Your task to perform on an android device: turn off picture-in-picture Image 0: 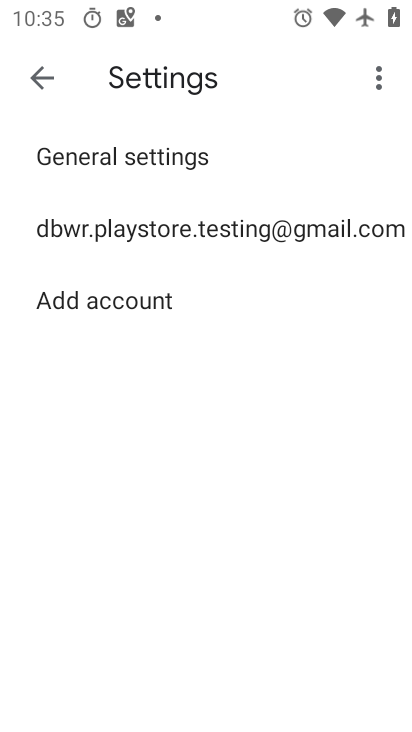
Step 0: press home button
Your task to perform on an android device: turn off picture-in-picture Image 1: 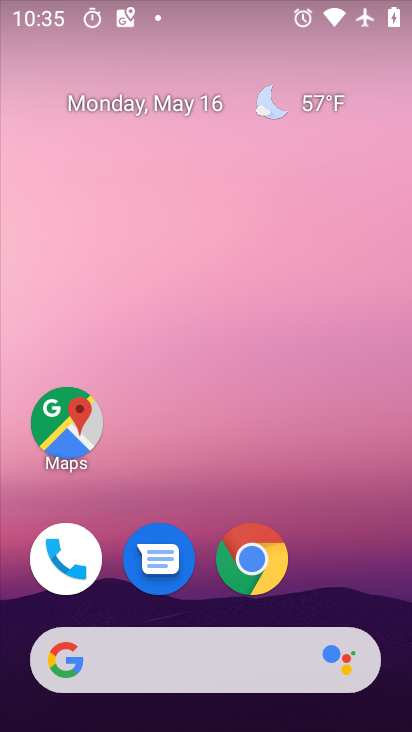
Step 1: click (240, 577)
Your task to perform on an android device: turn off picture-in-picture Image 2: 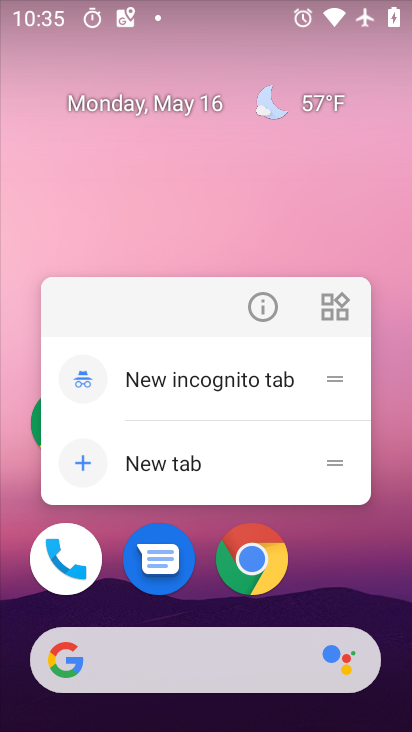
Step 2: click (269, 300)
Your task to perform on an android device: turn off picture-in-picture Image 3: 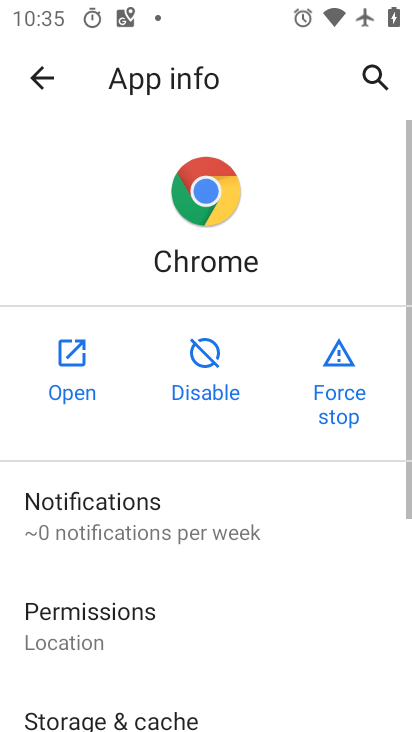
Step 3: drag from (323, 675) to (316, 67)
Your task to perform on an android device: turn off picture-in-picture Image 4: 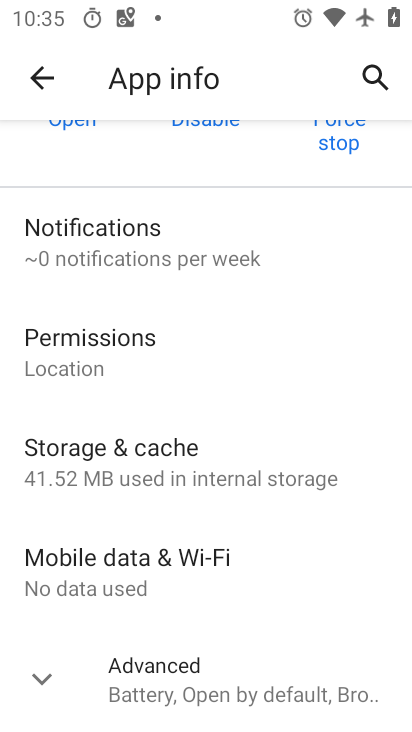
Step 4: click (188, 673)
Your task to perform on an android device: turn off picture-in-picture Image 5: 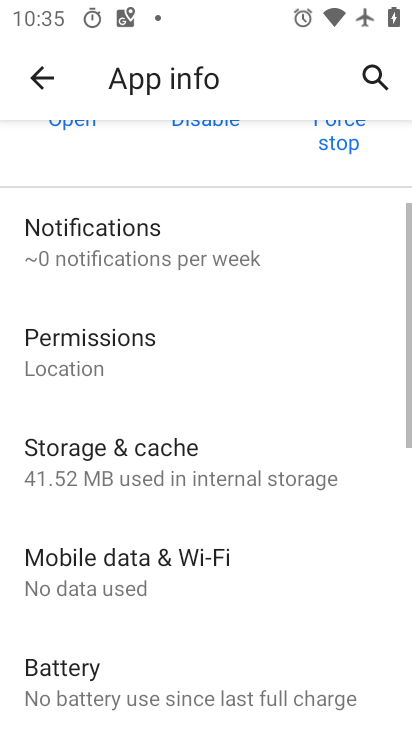
Step 5: drag from (348, 566) to (326, 102)
Your task to perform on an android device: turn off picture-in-picture Image 6: 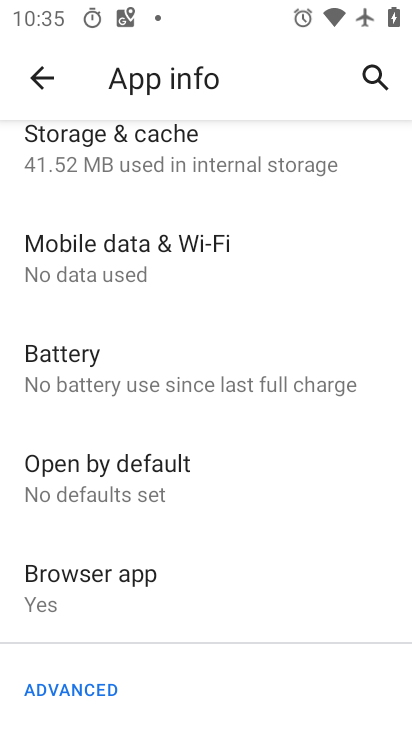
Step 6: drag from (241, 610) to (291, 128)
Your task to perform on an android device: turn off picture-in-picture Image 7: 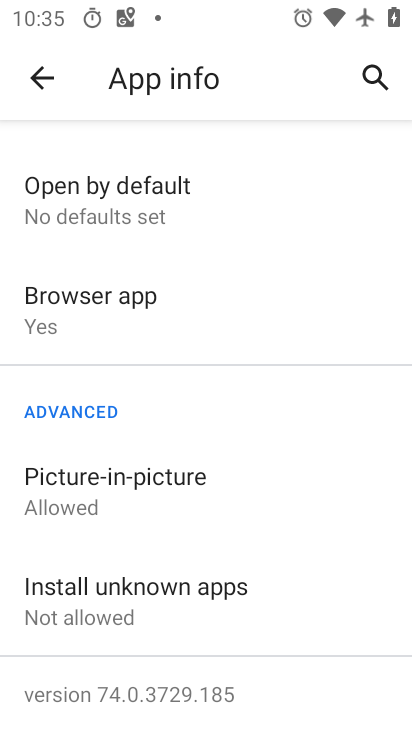
Step 7: click (138, 488)
Your task to perform on an android device: turn off picture-in-picture Image 8: 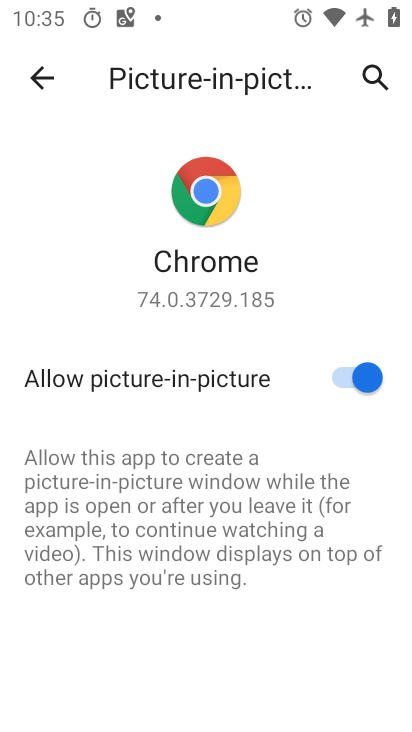
Step 8: click (353, 375)
Your task to perform on an android device: turn off picture-in-picture Image 9: 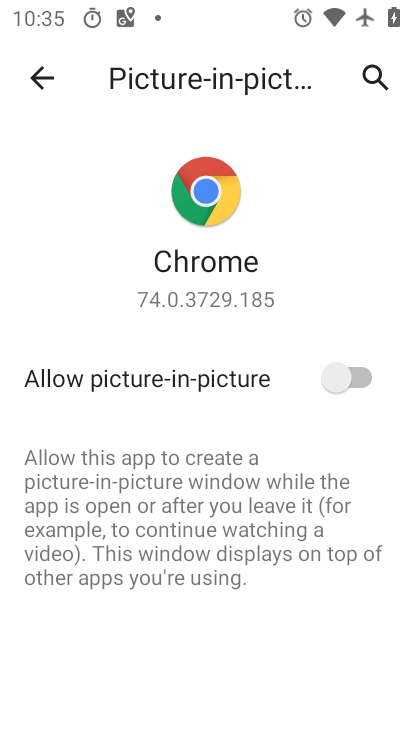
Step 9: task complete